Your task to perform on an android device: open app "Adobe Express: Graphic Design" Image 0: 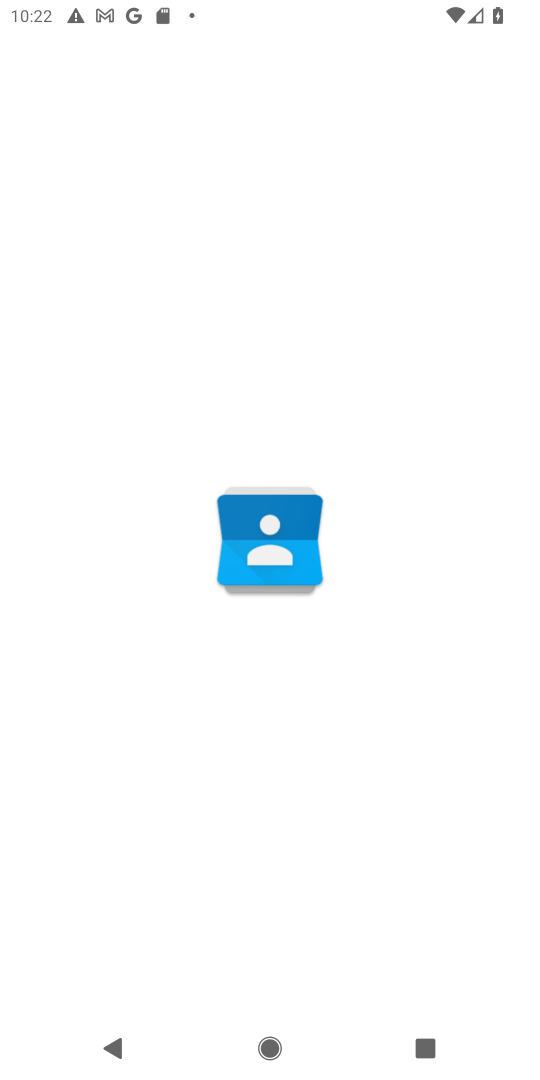
Step 0: press home button
Your task to perform on an android device: open app "Adobe Express: Graphic Design" Image 1: 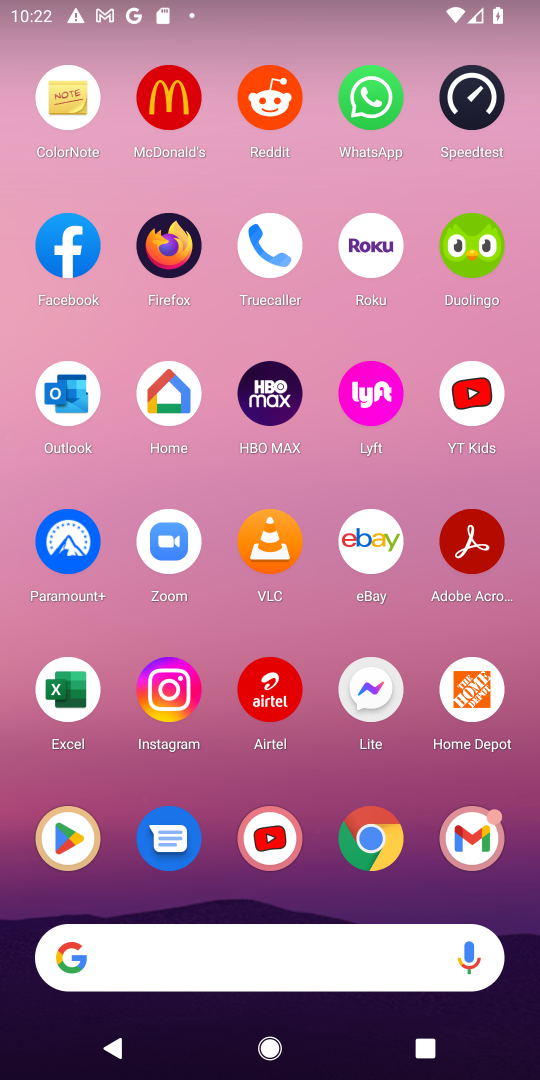
Step 1: drag from (418, 889) to (416, 249)
Your task to perform on an android device: open app "Adobe Express: Graphic Design" Image 2: 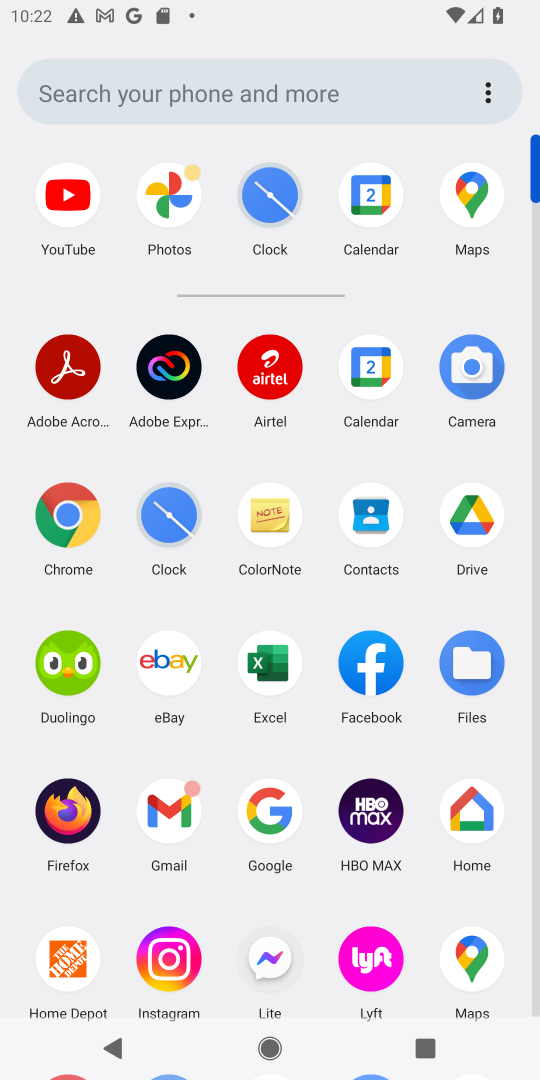
Step 2: drag from (510, 902) to (516, 472)
Your task to perform on an android device: open app "Adobe Express: Graphic Design" Image 3: 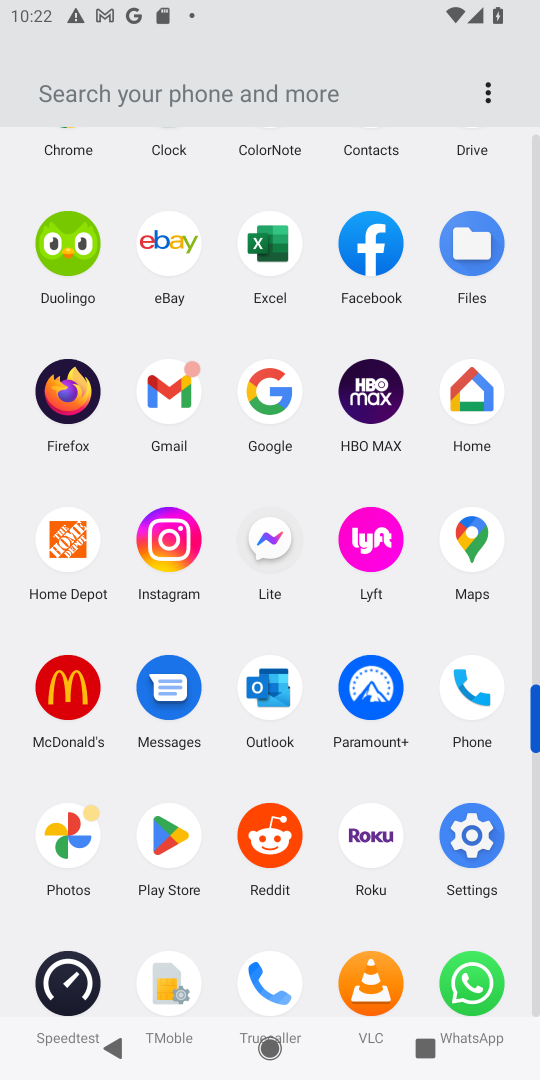
Step 3: click (171, 840)
Your task to perform on an android device: open app "Adobe Express: Graphic Design" Image 4: 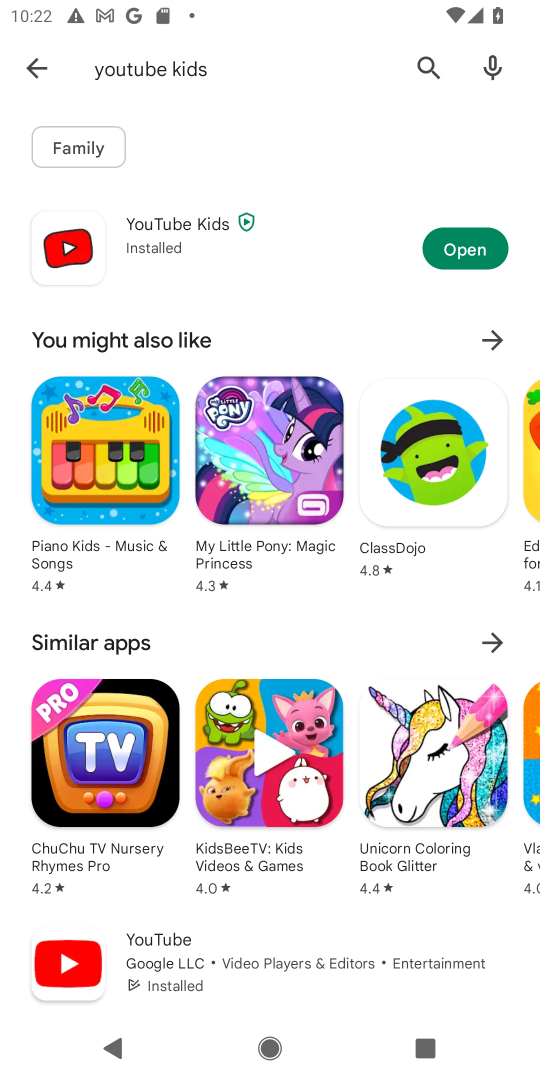
Step 4: click (424, 57)
Your task to perform on an android device: open app "Adobe Express: Graphic Design" Image 5: 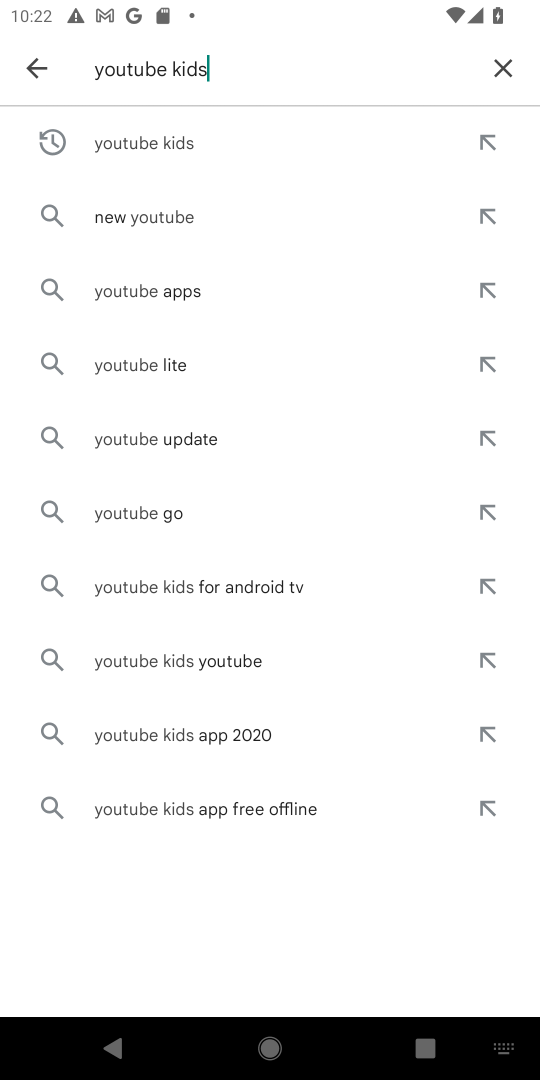
Step 5: click (500, 73)
Your task to perform on an android device: open app "Adobe Express: Graphic Design" Image 6: 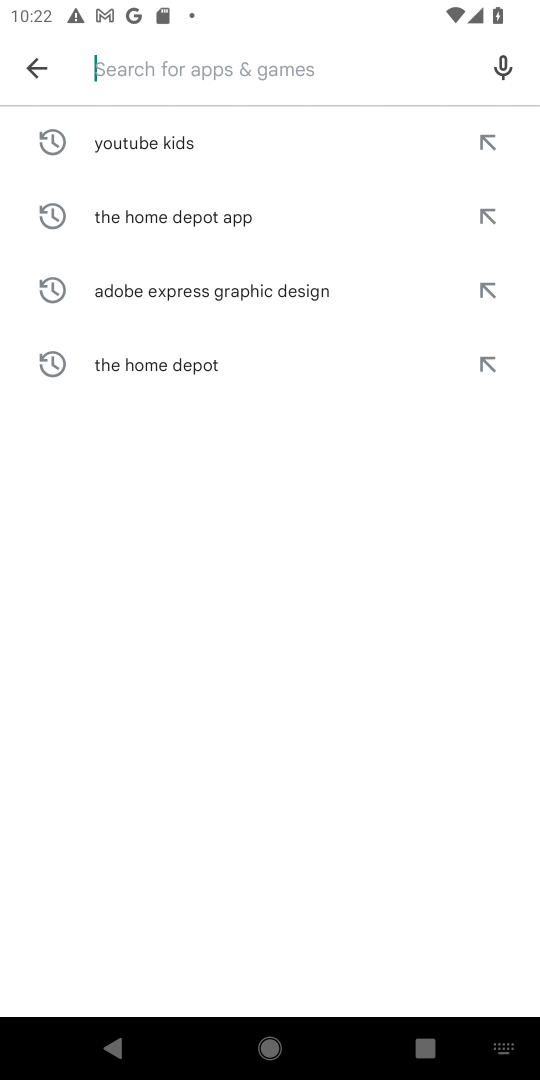
Step 6: click (337, 88)
Your task to perform on an android device: open app "Adobe Express: Graphic Design" Image 7: 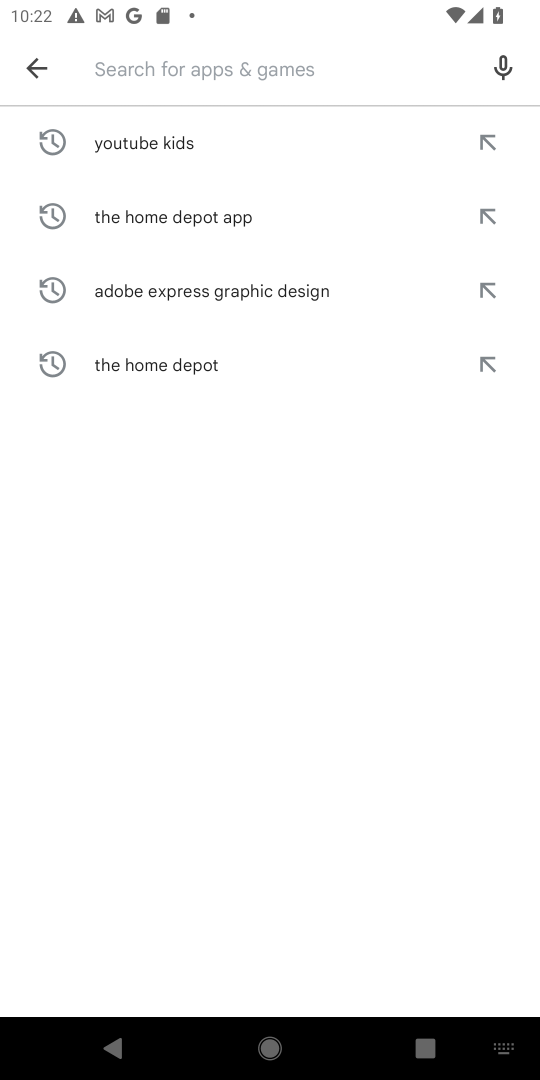
Step 7: type "Adobe Express: Graphic Design"
Your task to perform on an android device: open app "Adobe Express: Graphic Design" Image 8: 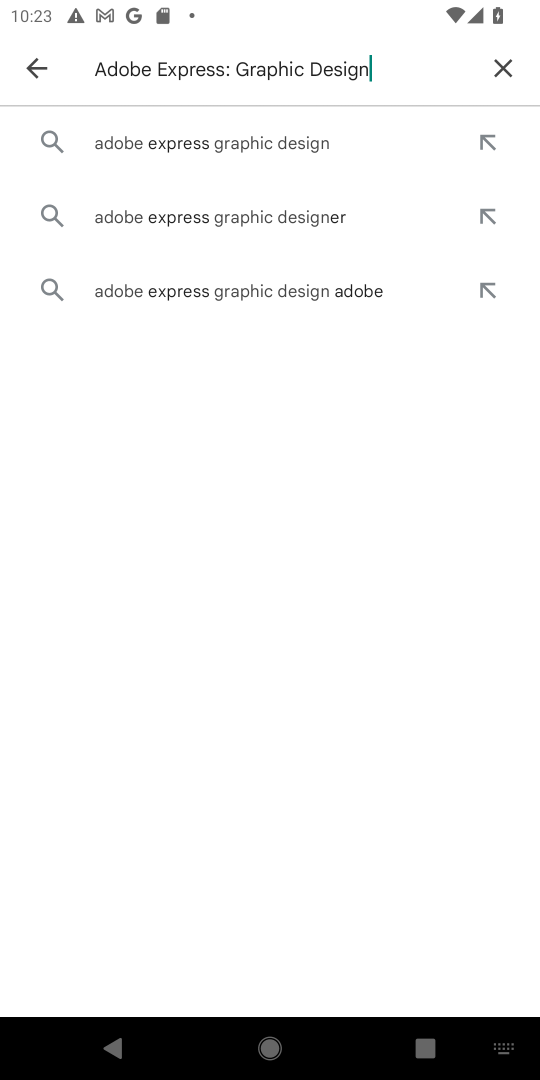
Step 8: click (332, 138)
Your task to perform on an android device: open app "Adobe Express: Graphic Design" Image 9: 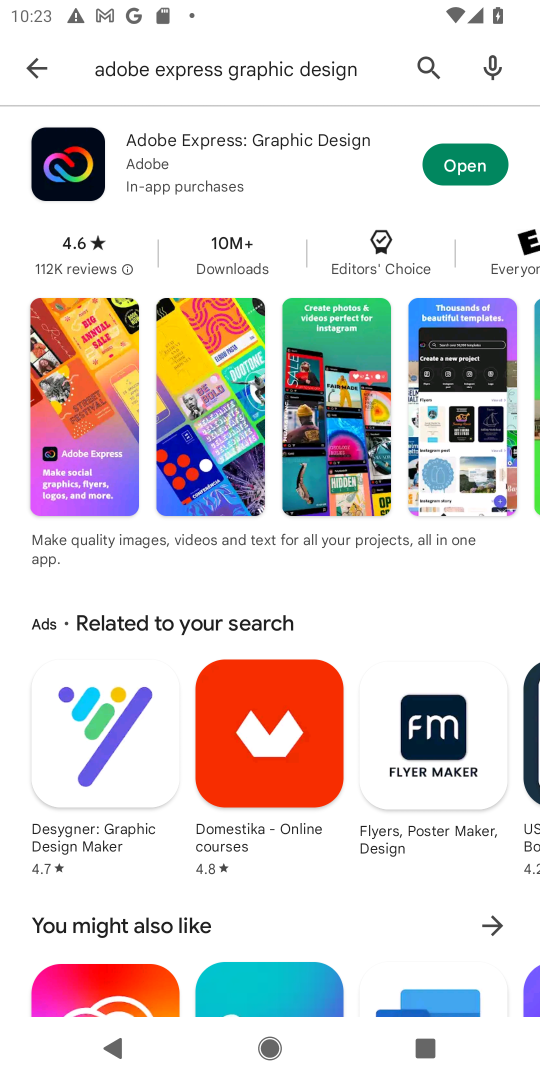
Step 9: click (485, 163)
Your task to perform on an android device: open app "Adobe Express: Graphic Design" Image 10: 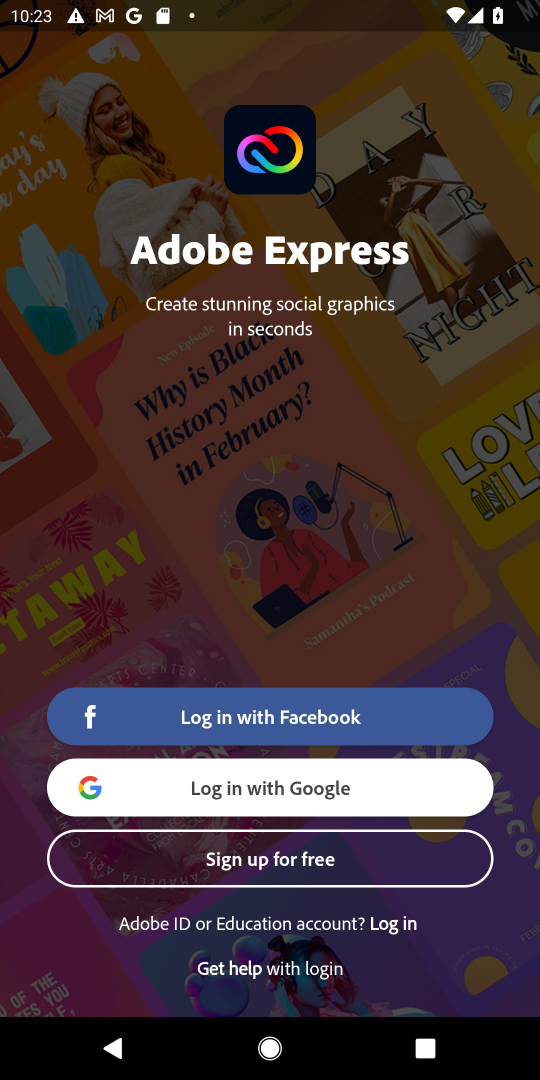
Step 10: task complete